Your task to perform on an android device: visit the assistant section in the google photos Image 0: 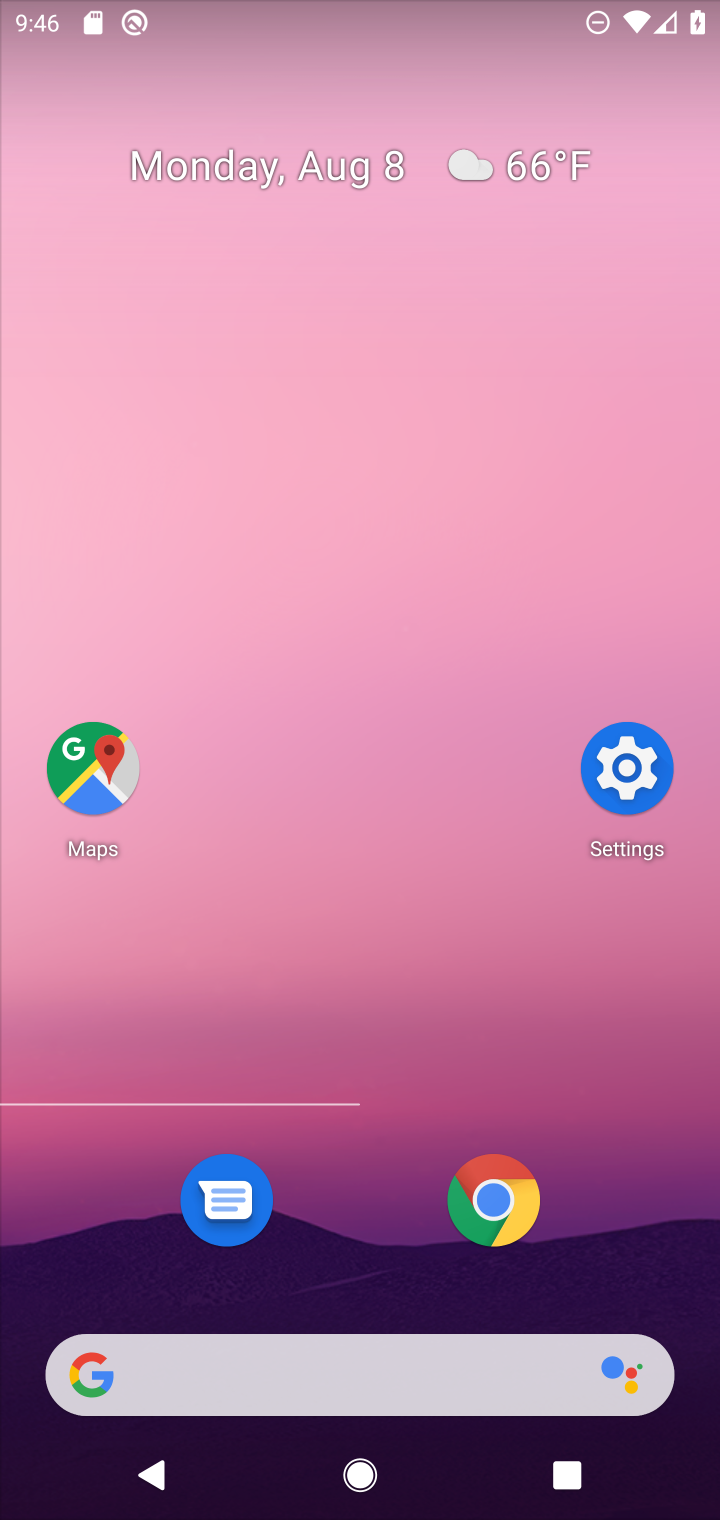
Step 0: press home button
Your task to perform on an android device: visit the assistant section in the google photos Image 1: 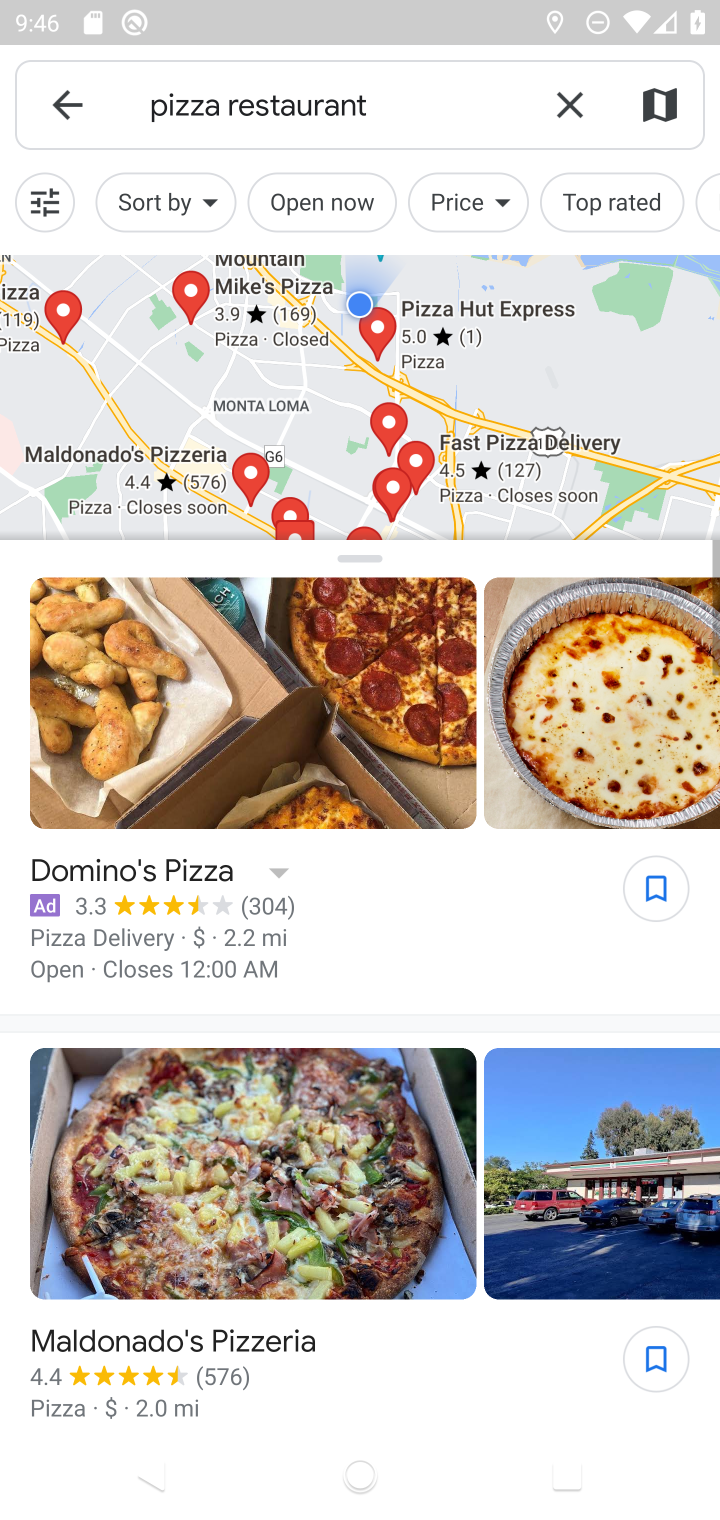
Step 1: click (634, 769)
Your task to perform on an android device: visit the assistant section in the google photos Image 2: 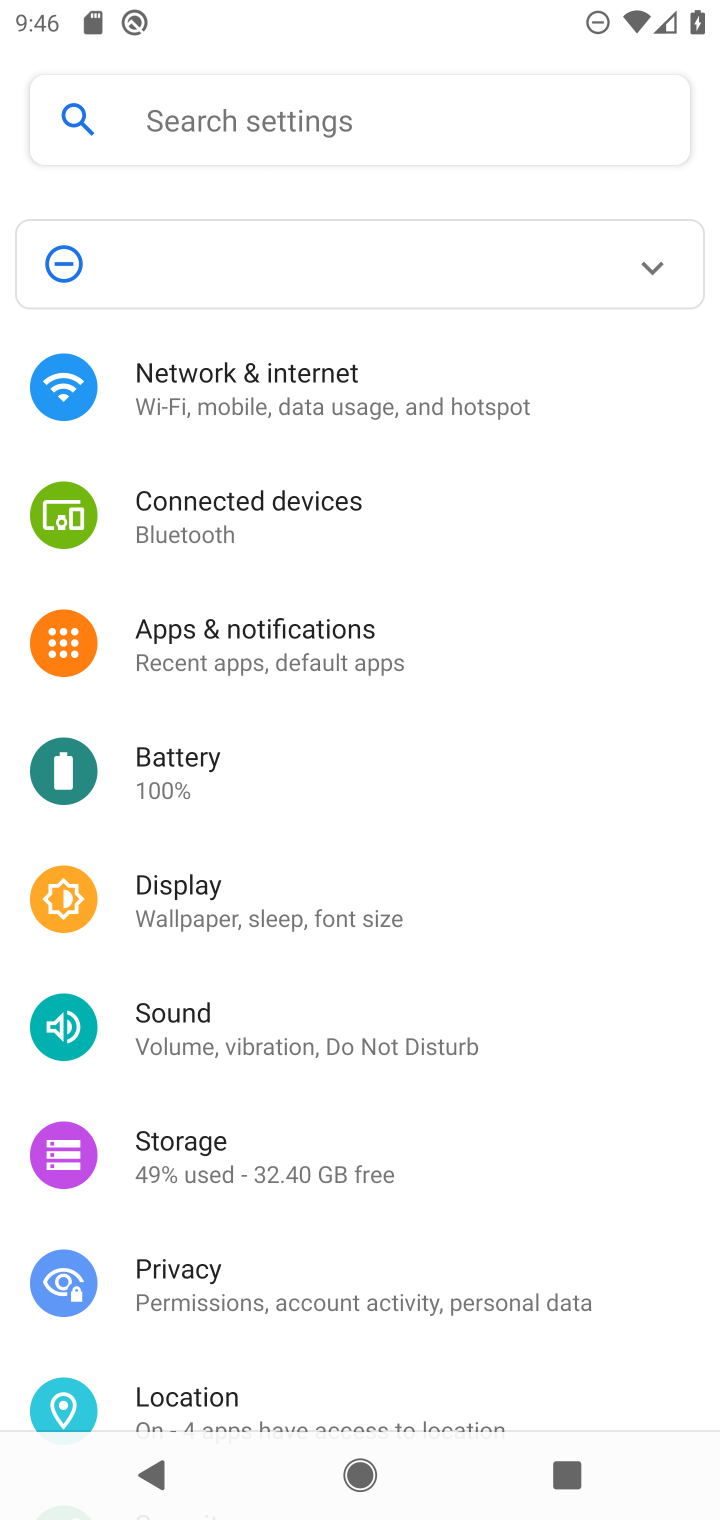
Step 2: drag from (533, 335) to (532, 990)
Your task to perform on an android device: visit the assistant section in the google photos Image 3: 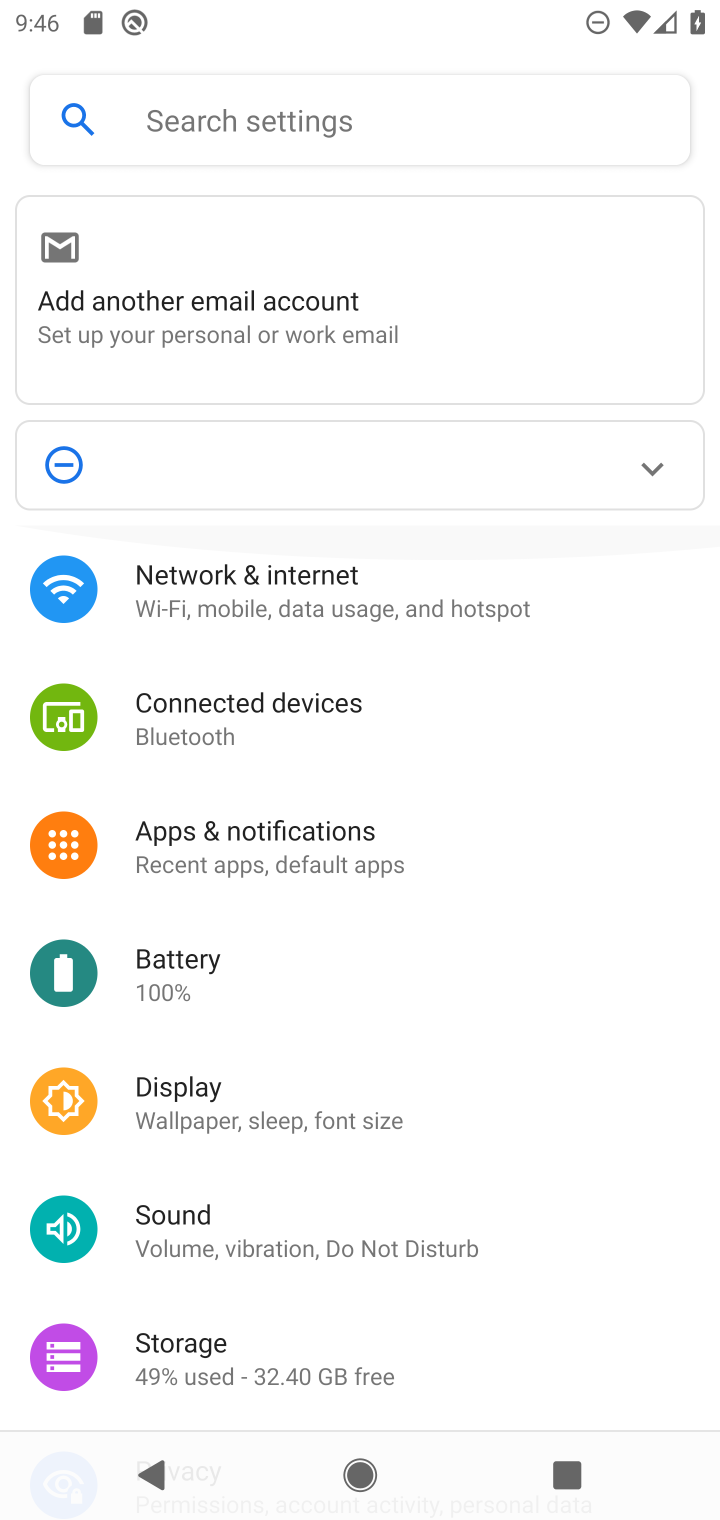
Step 3: click (332, 572)
Your task to perform on an android device: visit the assistant section in the google photos Image 4: 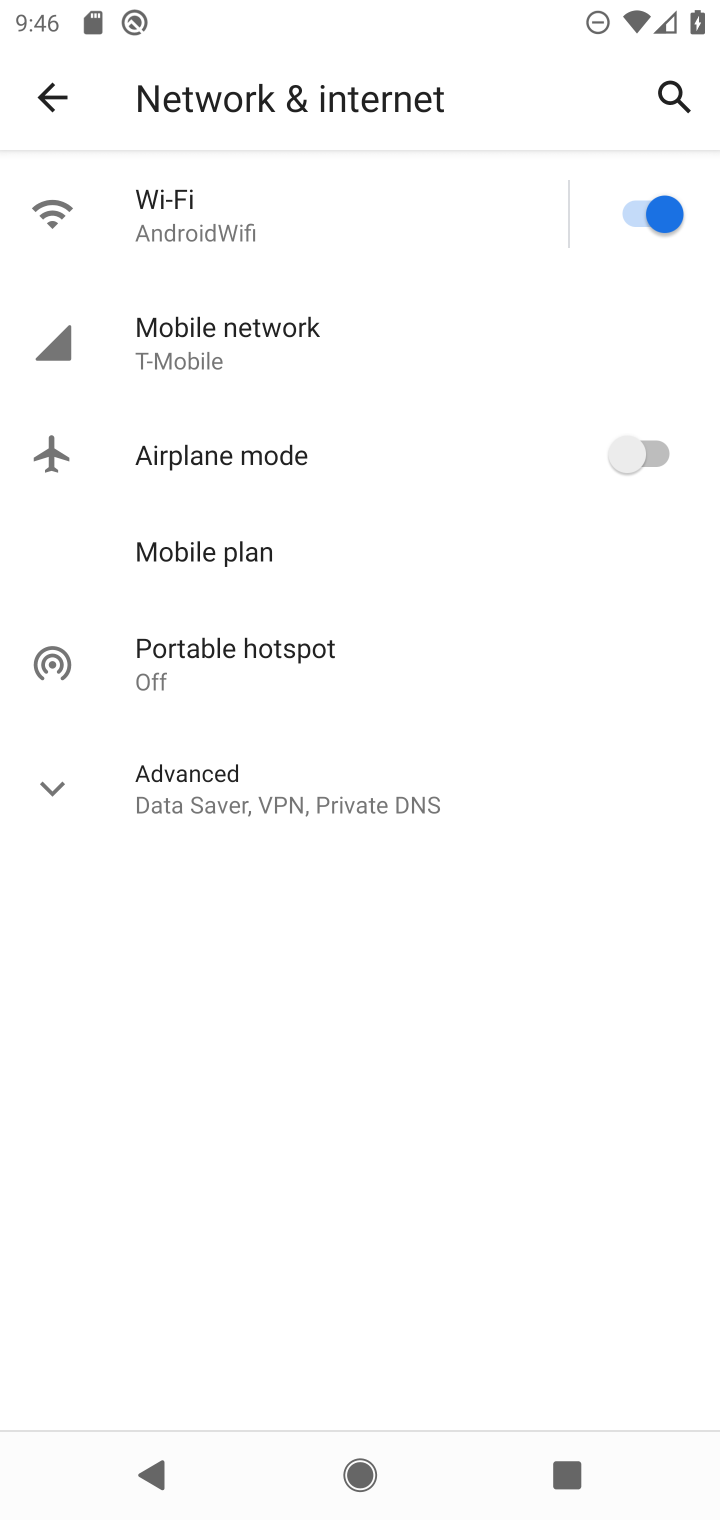
Step 4: press home button
Your task to perform on an android device: visit the assistant section in the google photos Image 5: 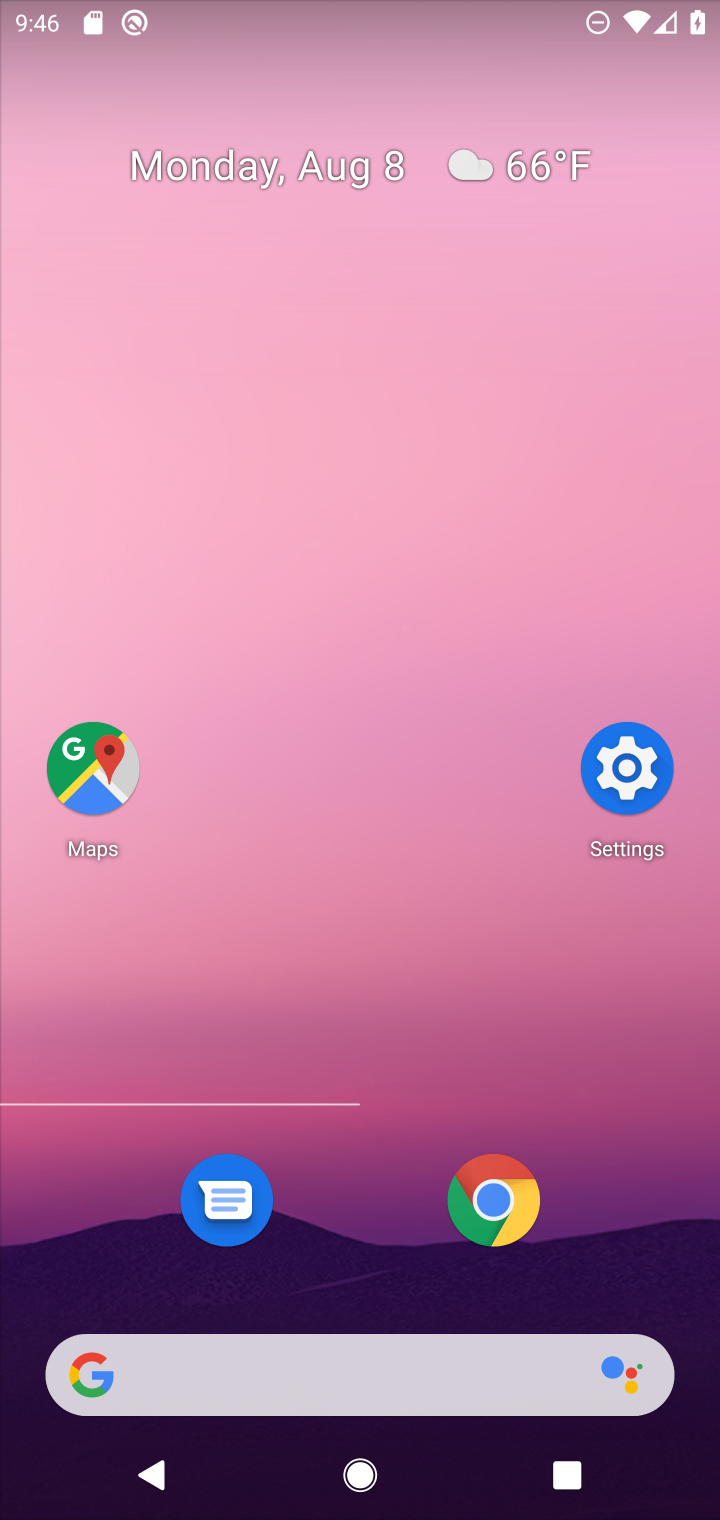
Step 5: drag from (406, 1233) to (669, 279)
Your task to perform on an android device: visit the assistant section in the google photos Image 6: 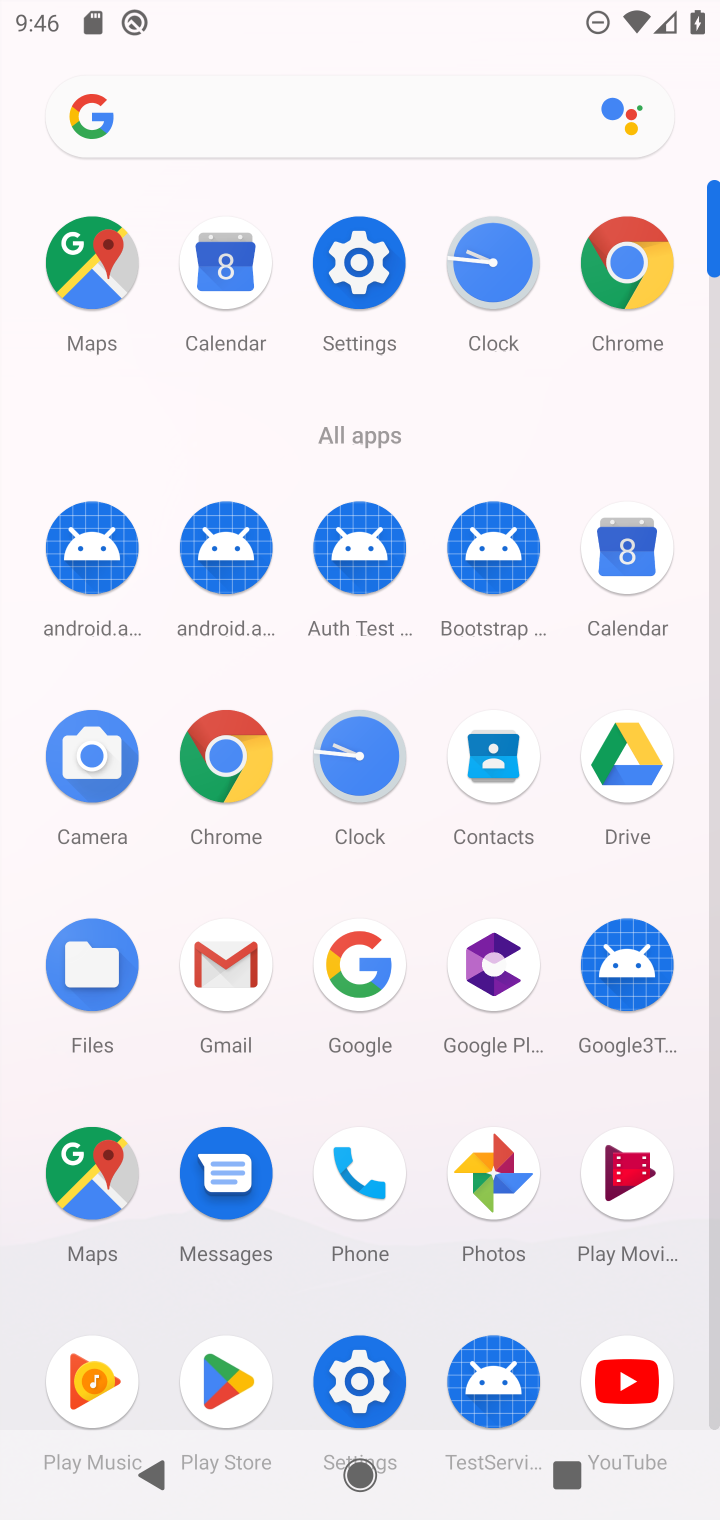
Step 6: click (482, 1171)
Your task to perform on an android device: visit the assistant section in the google photos Image 7: 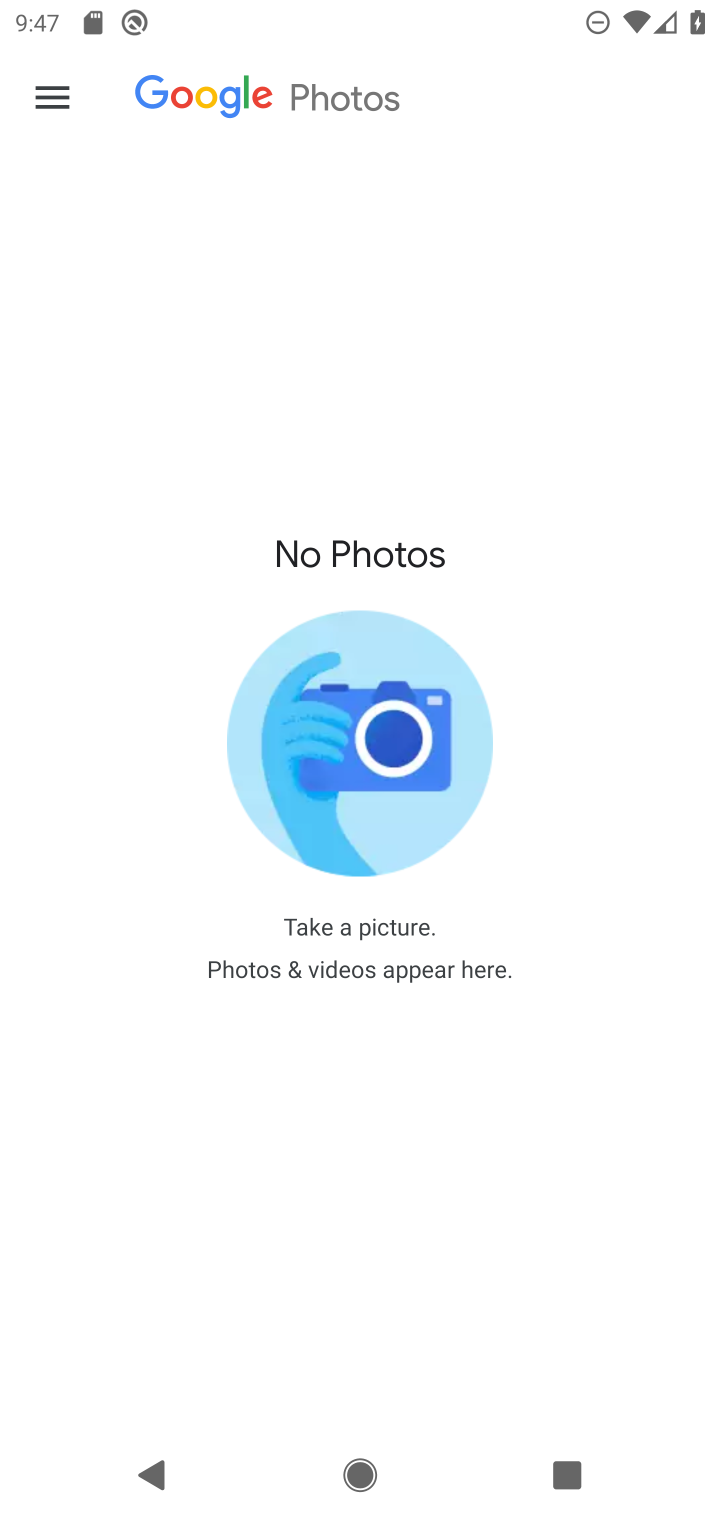
Step 7: click (53, 98)
Your task to perform on an android device: visit the assistant section in the google photos Image 8: 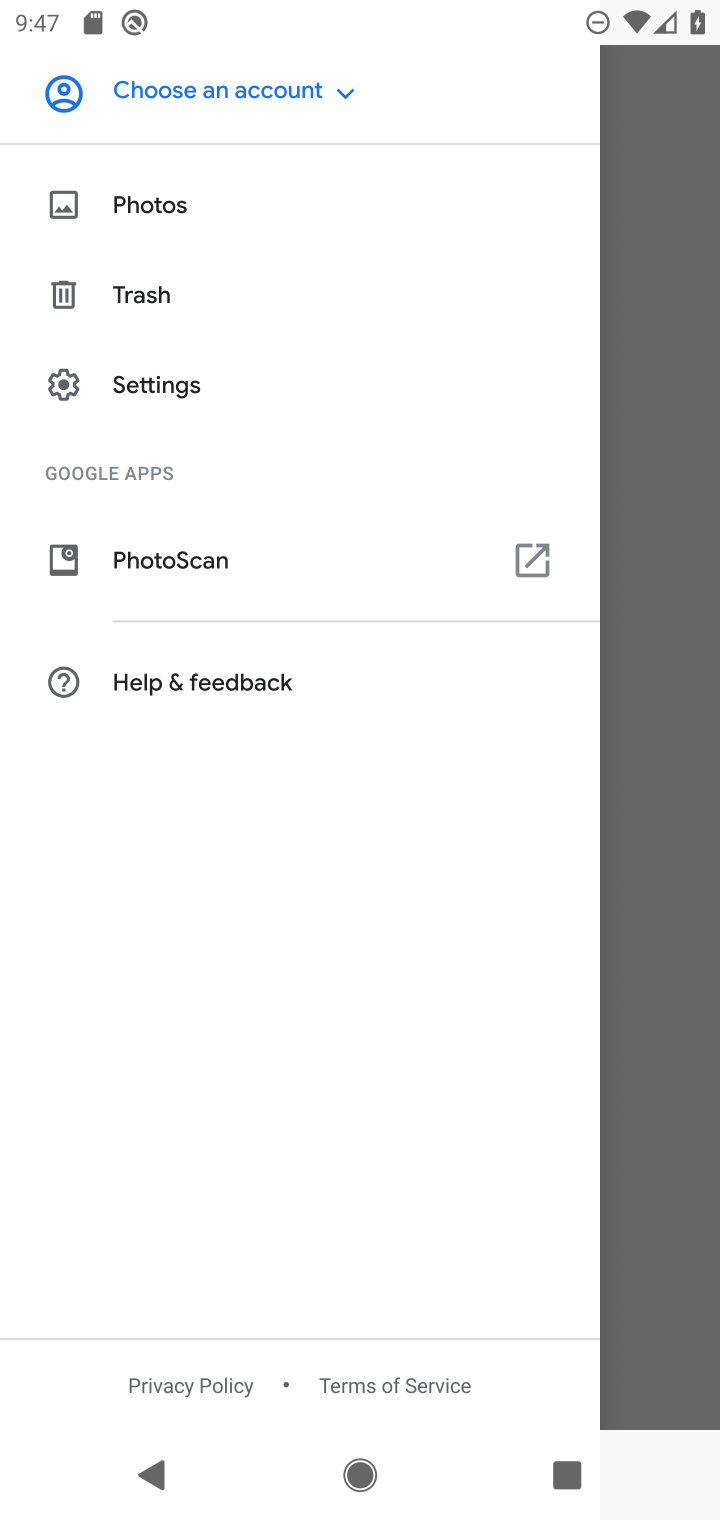
Step 8: click (653, 459)
Your task to perform on an android device: visit the assistant section in the google photos Image 9: 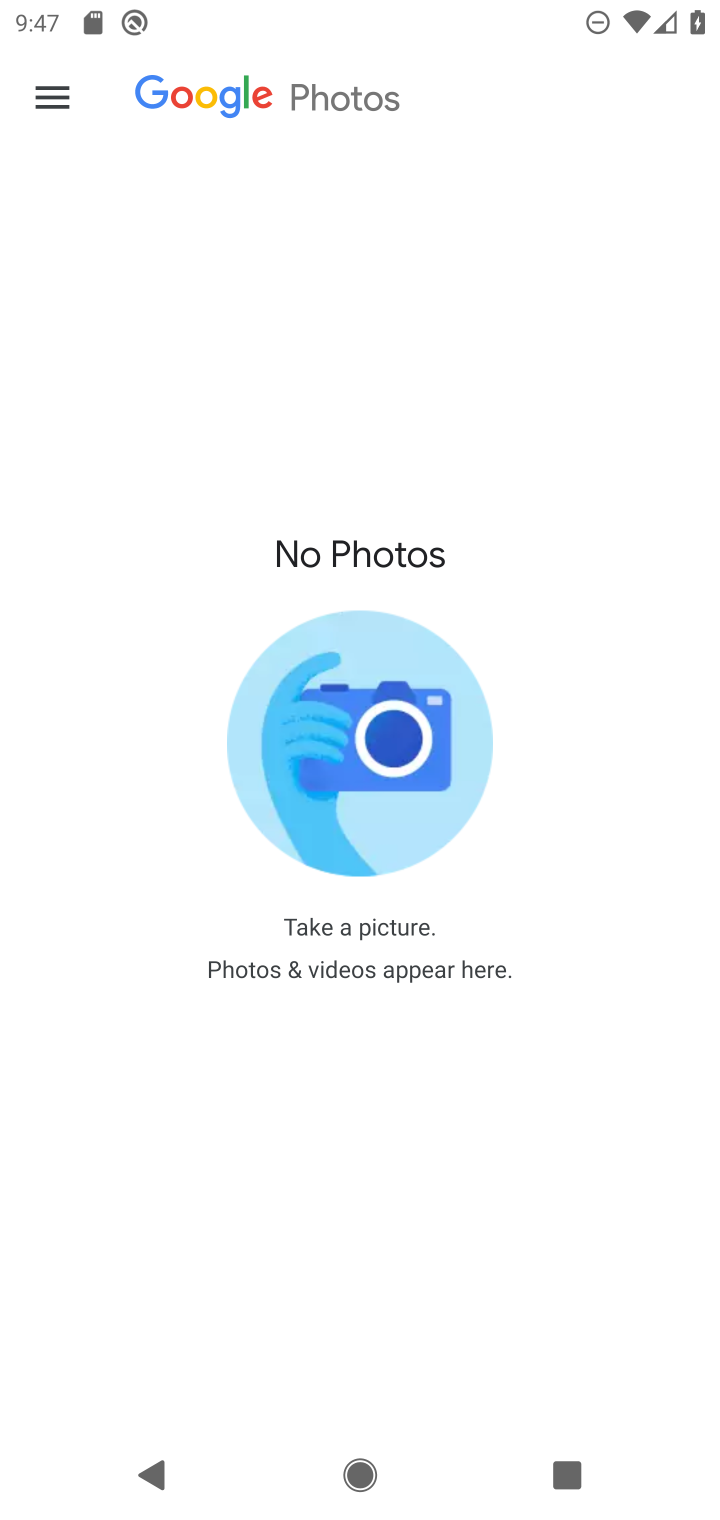
Step 9: drag from (467, 509) to (442, 438)
Your task to perform on an android device: visit the assistant section in the google photos Image 10: 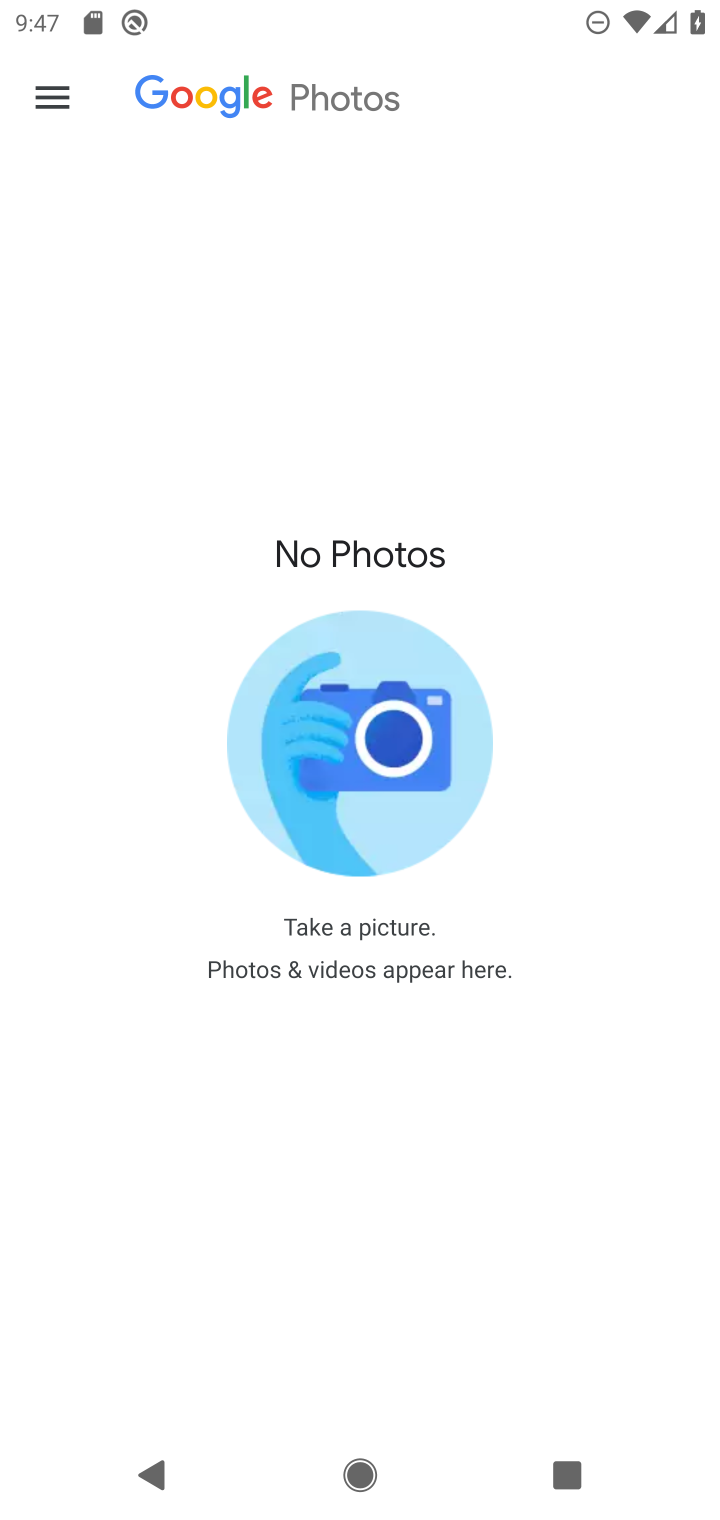
Step 10: click (46, 105)
Your task to perform on an android device: visit the assistant section in the google photos Image 11: 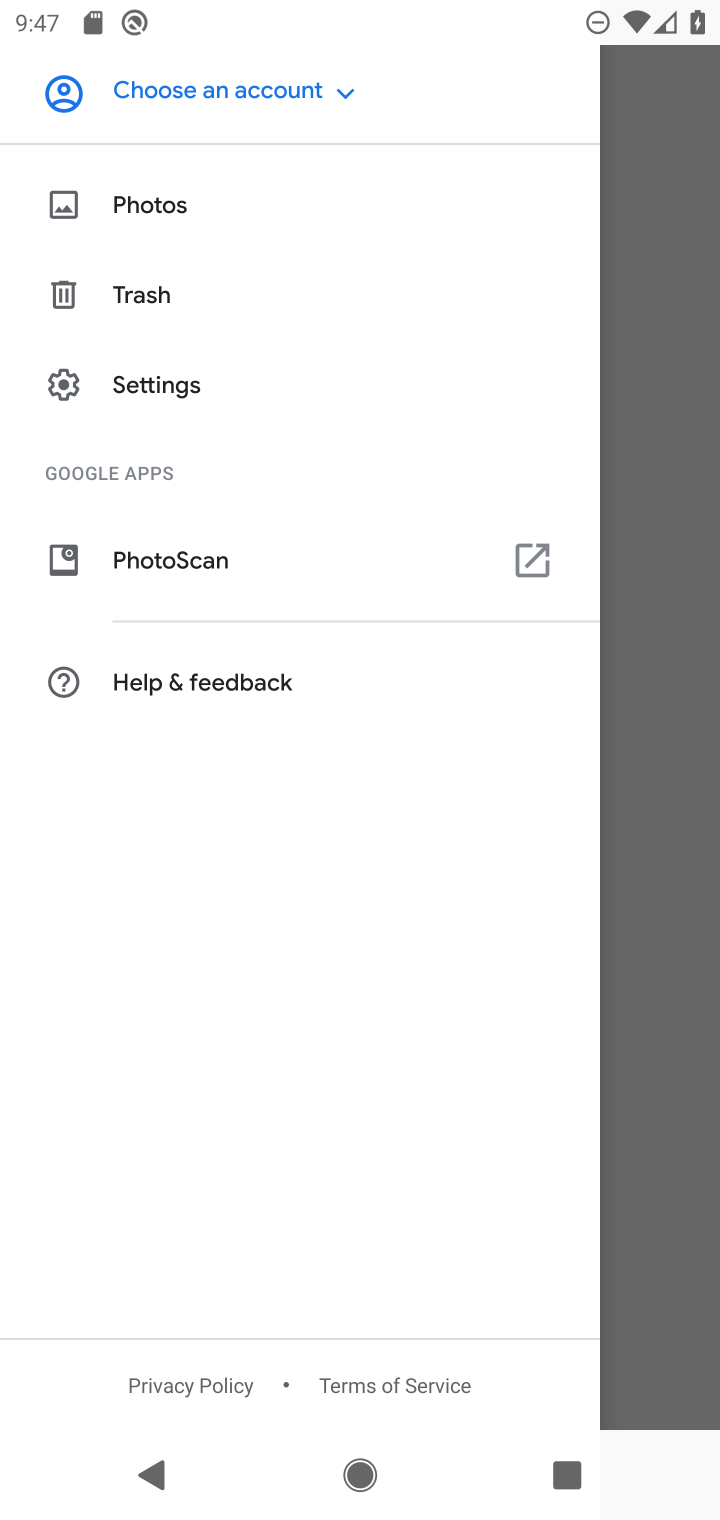
Step 11: click (328, 89)
Your task to perform on an android device: visit the assistant section in the google photos Image 12: 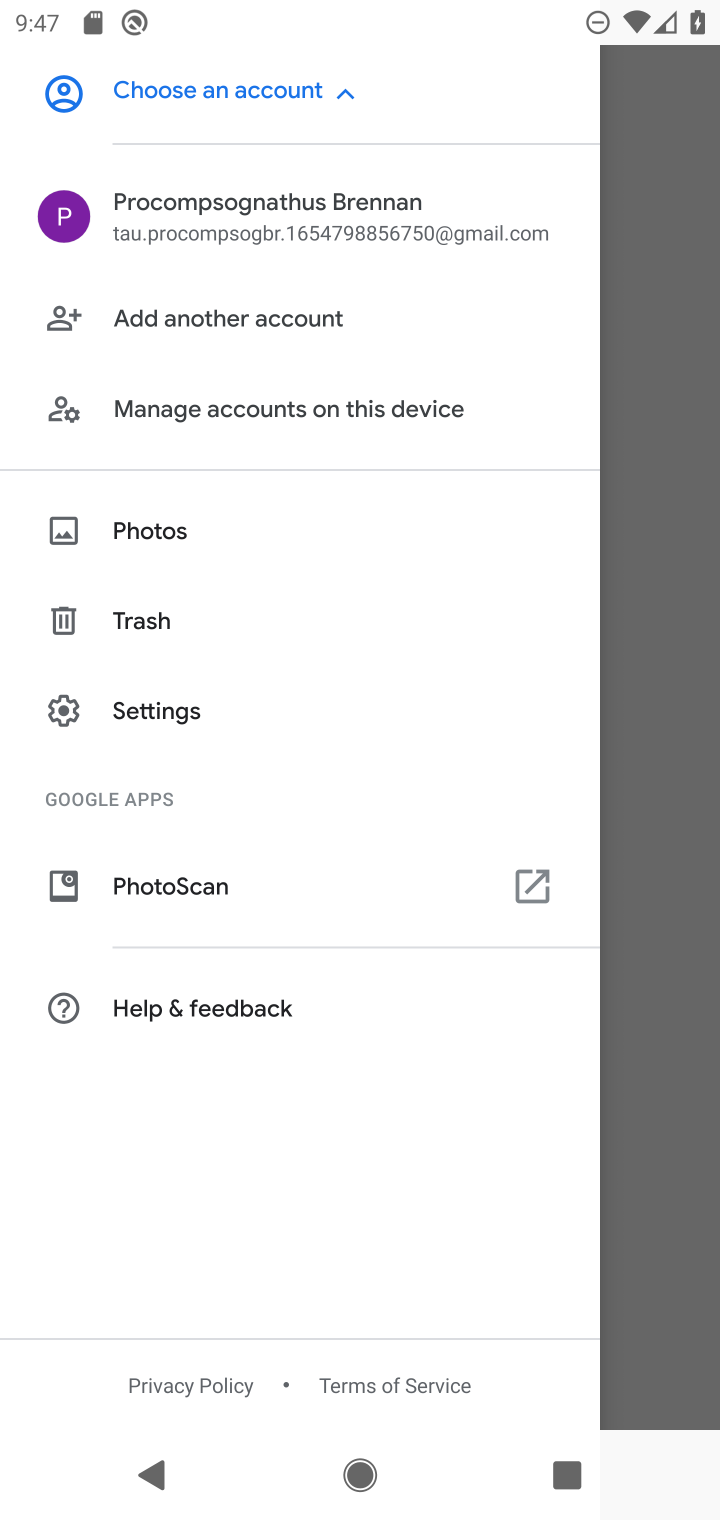
Step 12: click (324, 237)
Your task to perform on an android device: visit the assistant section in the google photos Image 13: 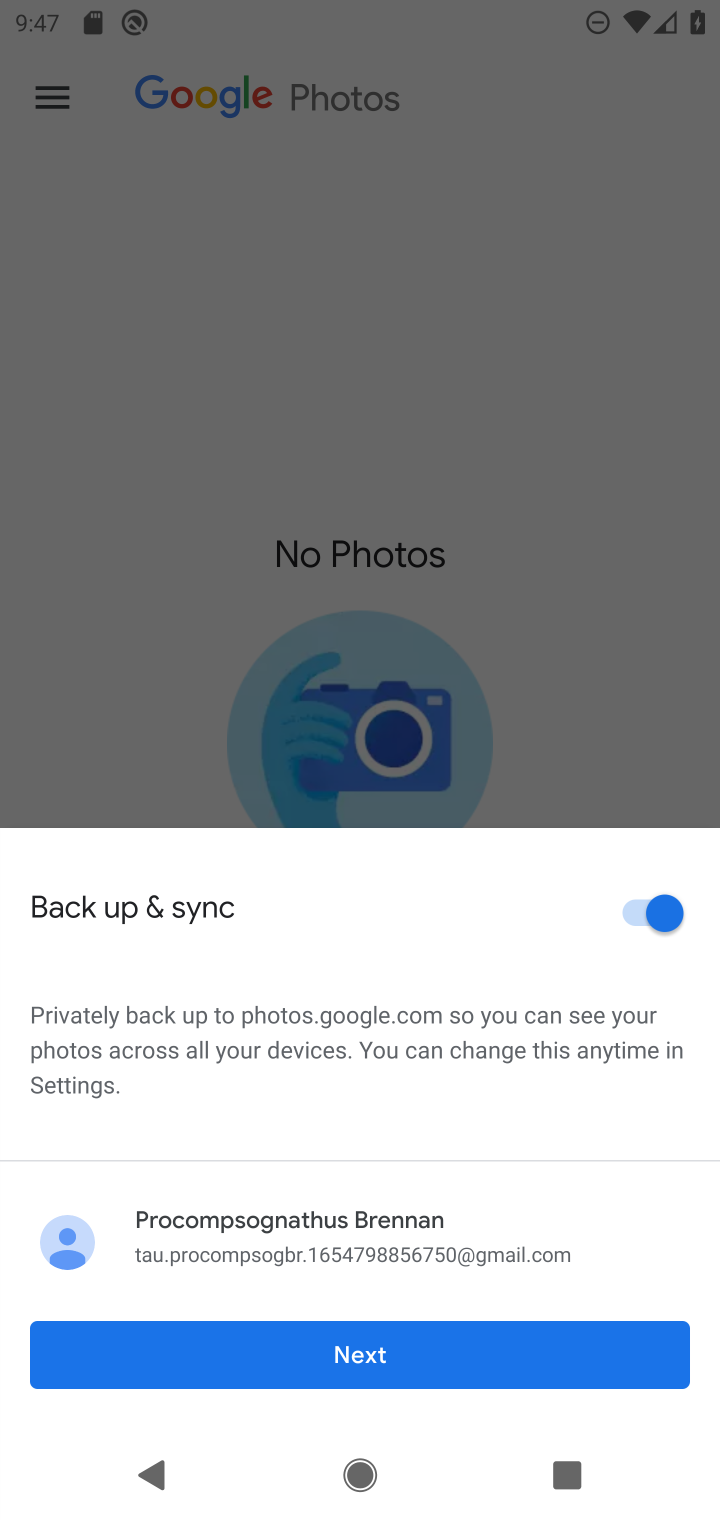
Step 13: click (366, 1358)
Your task to perform on an android device: visit the assistant section in the google photos Image 14: 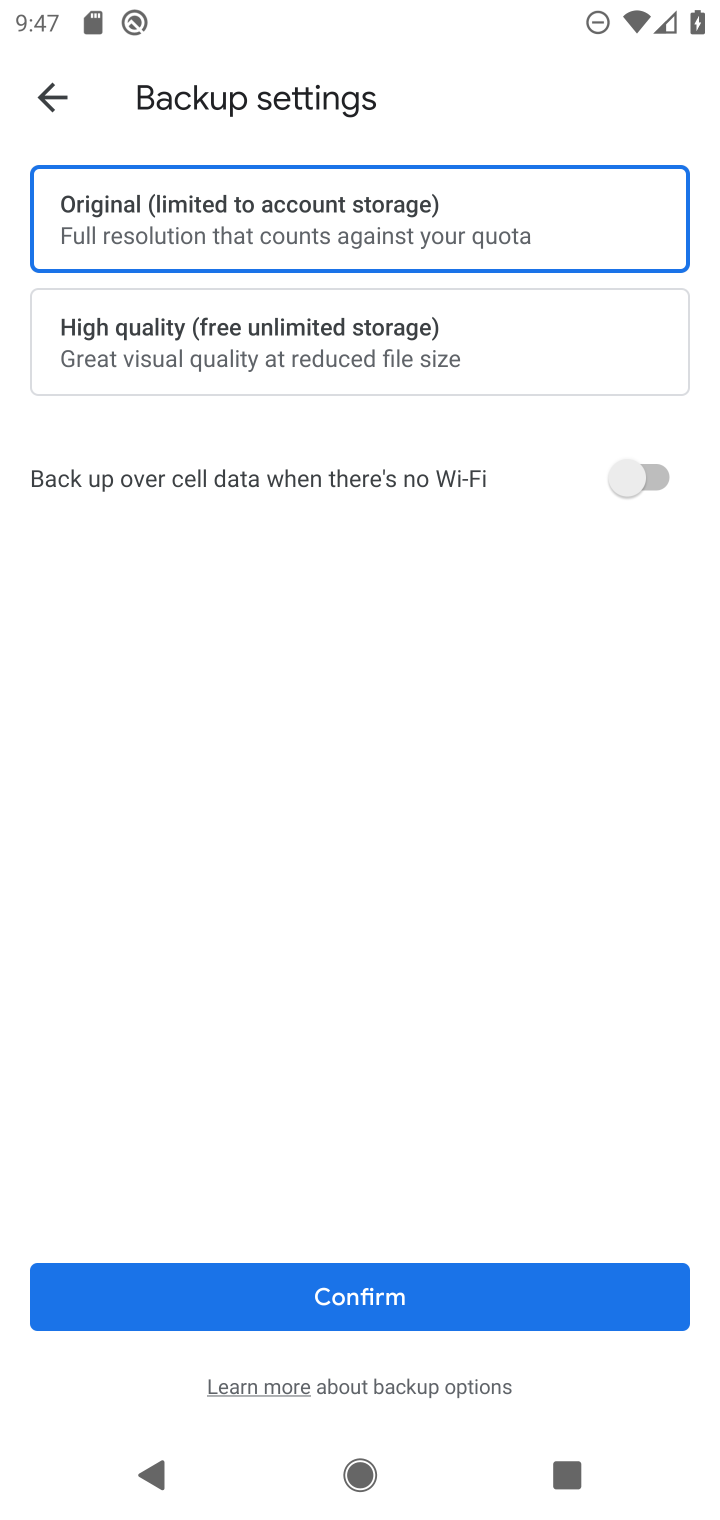
Step 14: click (373, 1300)
Your task to perform on an android device: visit the assistant section in the google photos Image 15: 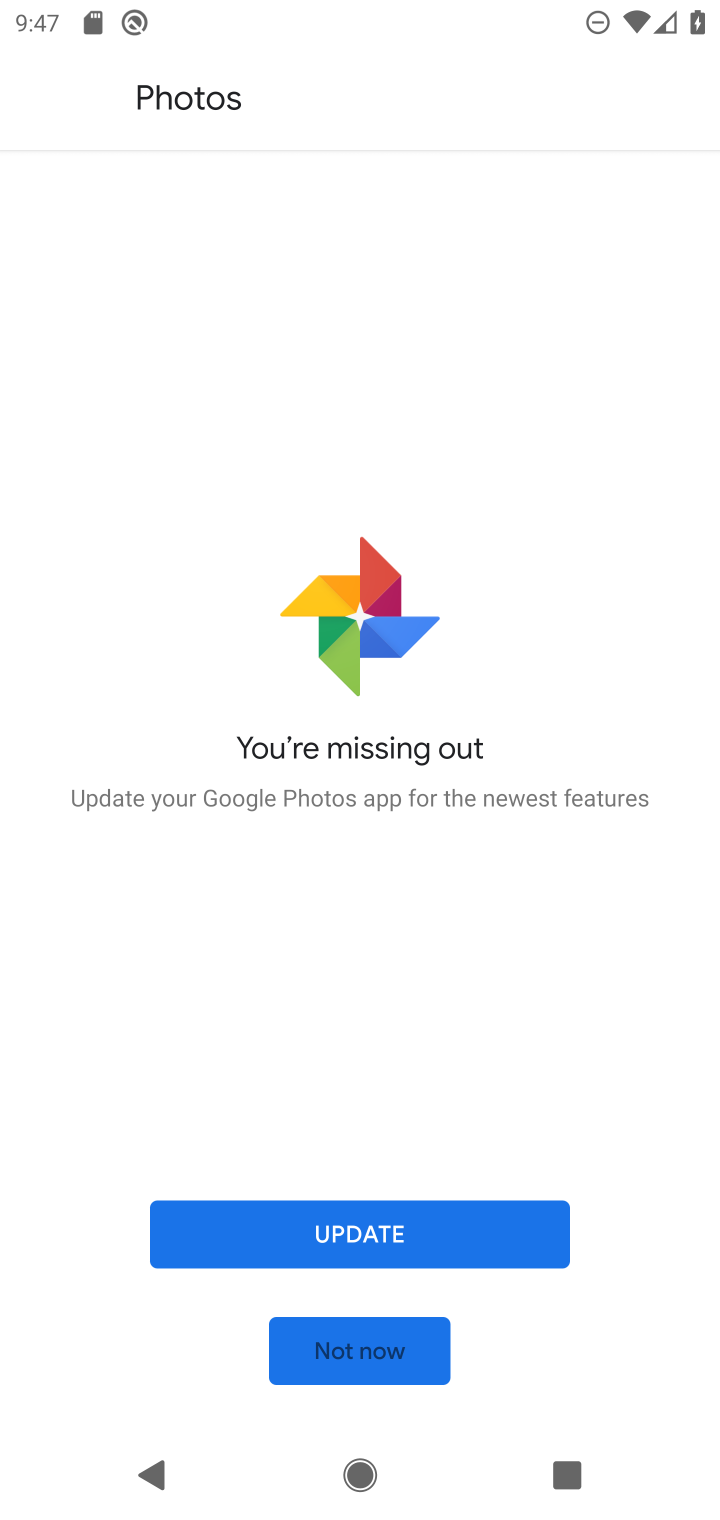
Step 15: click (375, 1221)
Your task to perform on an android device: visit the assistant section in the google photos Image 16: 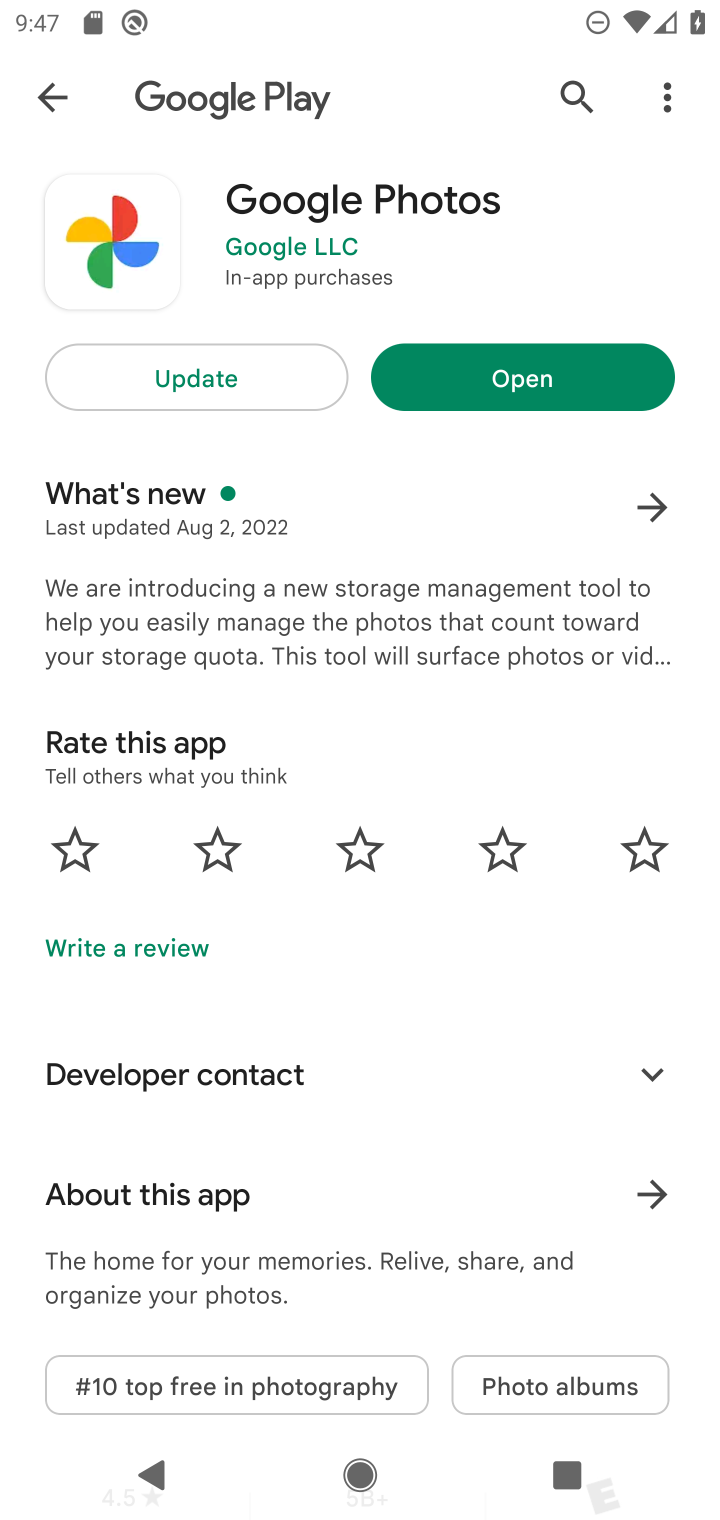
Step 16: click (230, 374)
Your task to perform on an android device: visit the assistant section in the google photos Image 17: 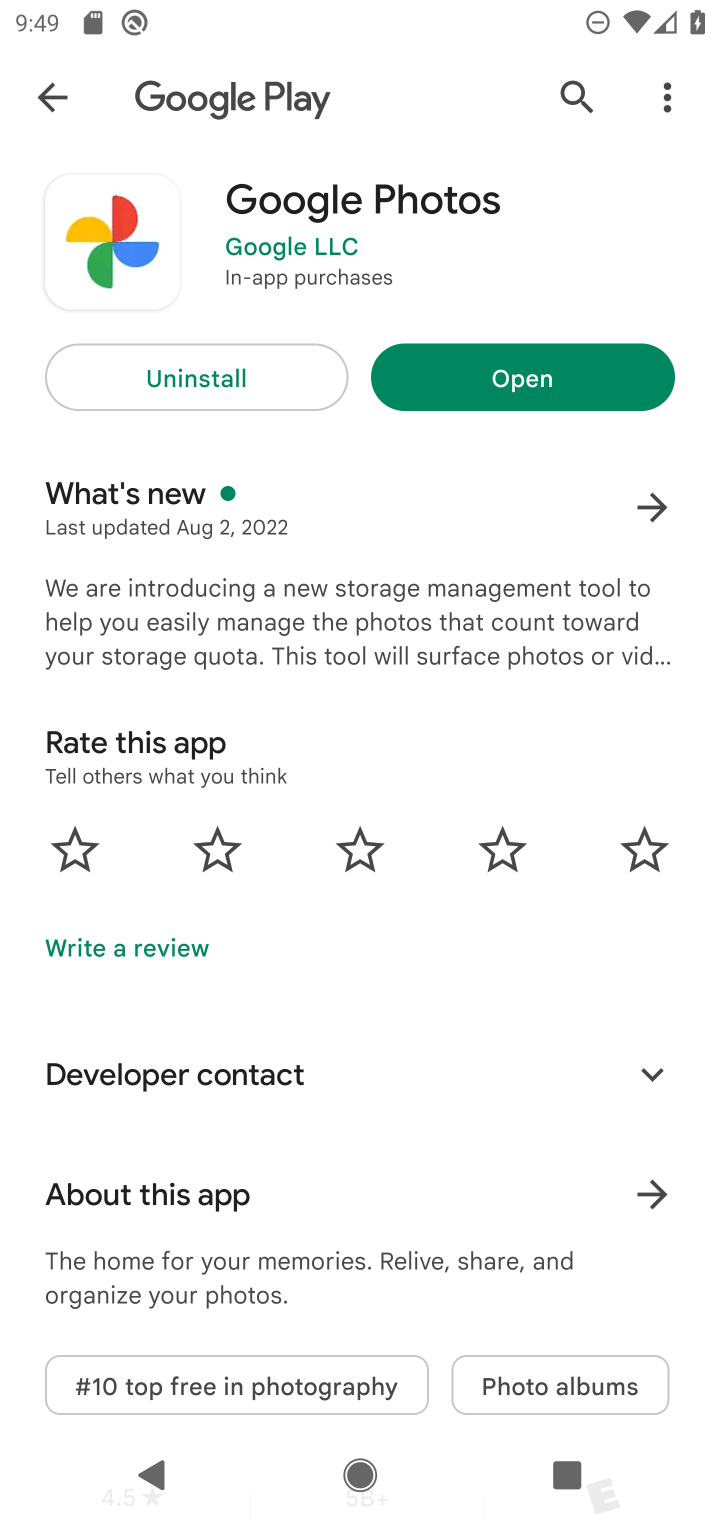
Step 17: click (561, 379)
Your task to perform on an android device: visit the assistant section in the google photos Image 18: 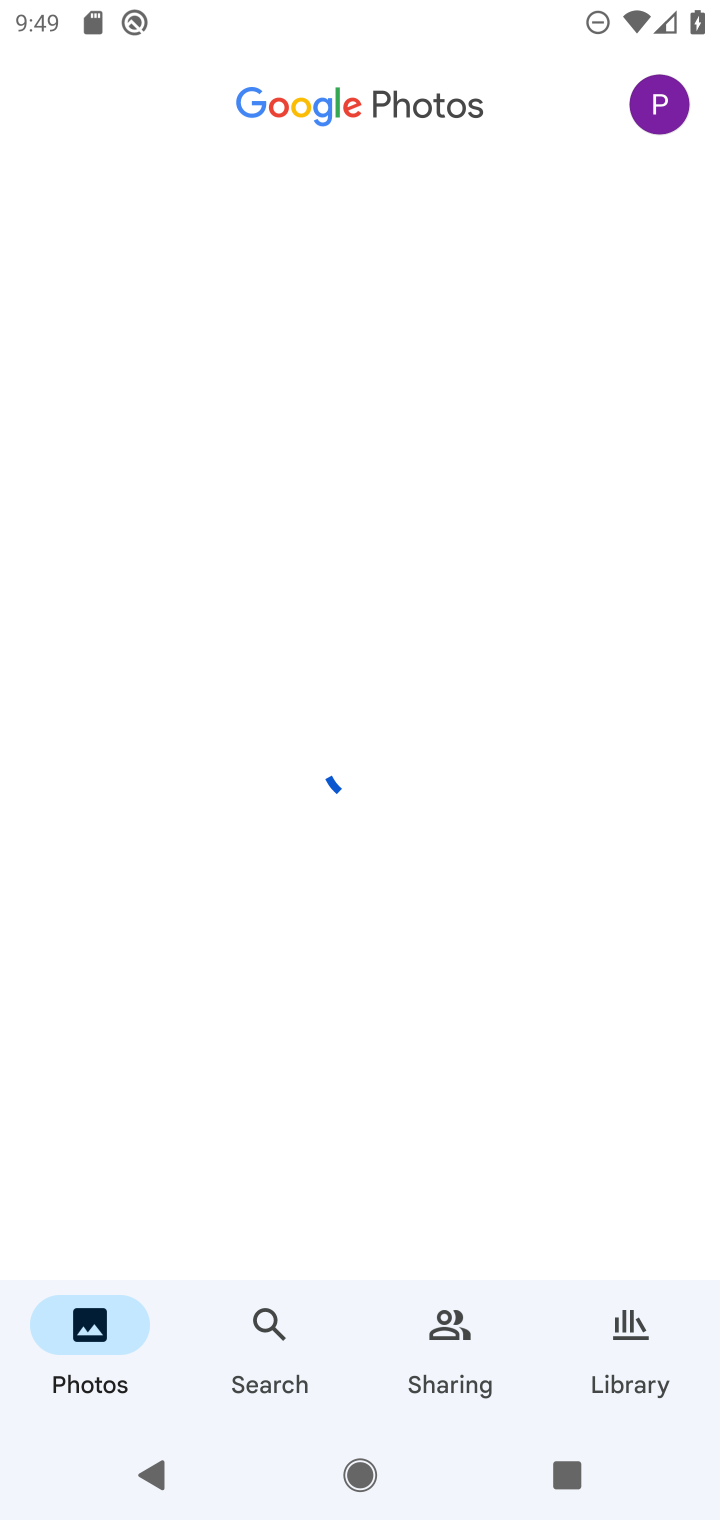
Step 18: click (613, 1376)
Your task to perform on an android device: visit the assistant section in the google photos Image 19: 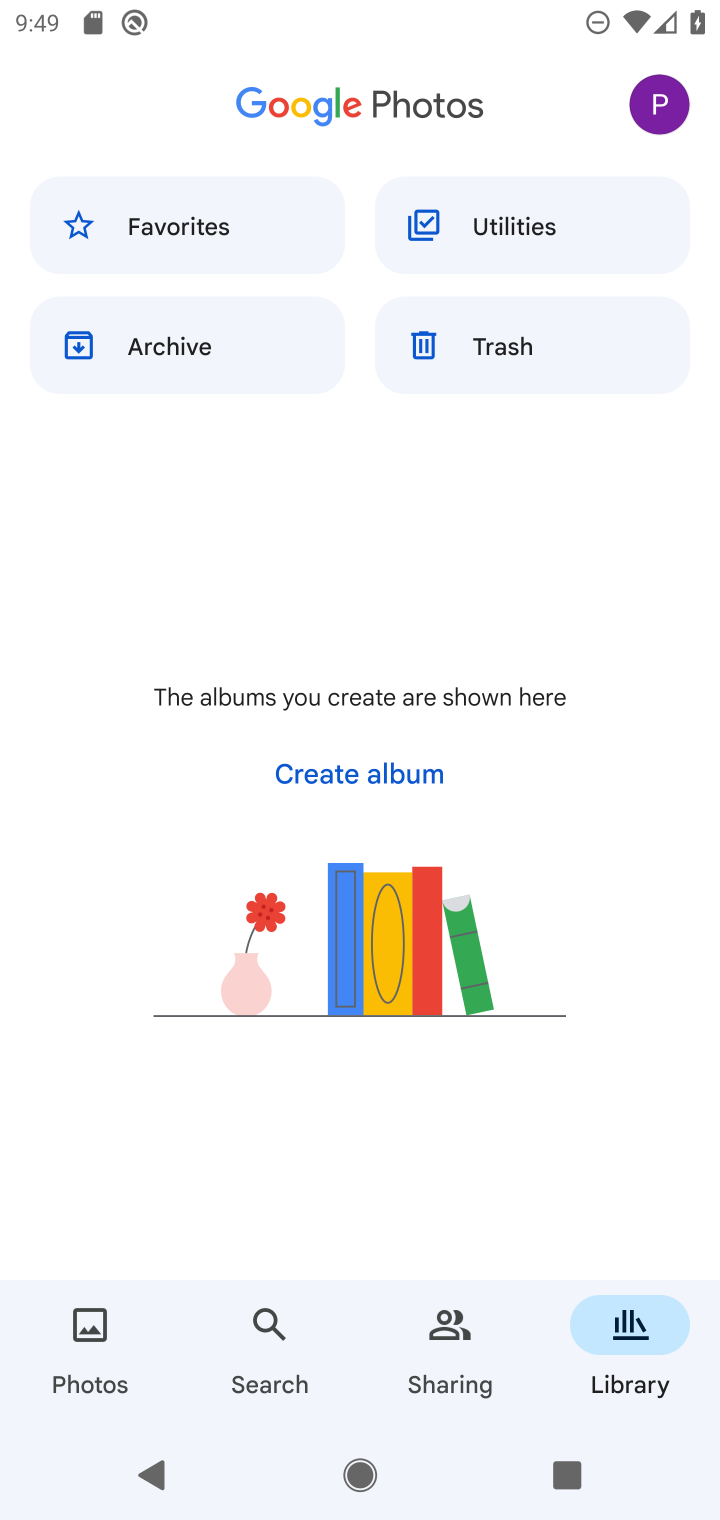
Step 19: task complete